Your task to perform on an android device: allow cookies in the chrome app Image 0: 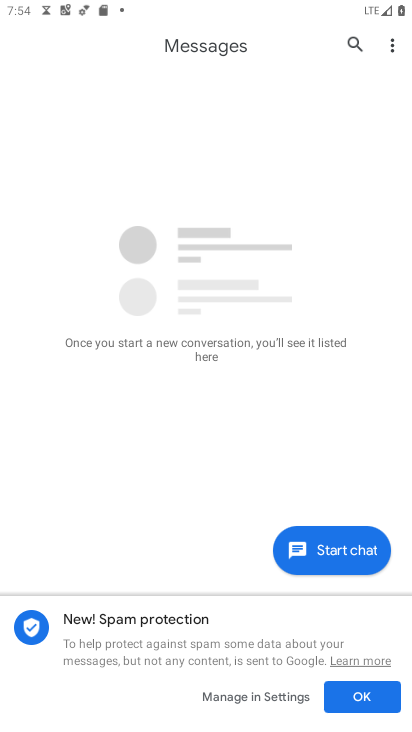
Step 0: press back button
Your task to perform on an android device: allow cookies in the chrome app Image 1: 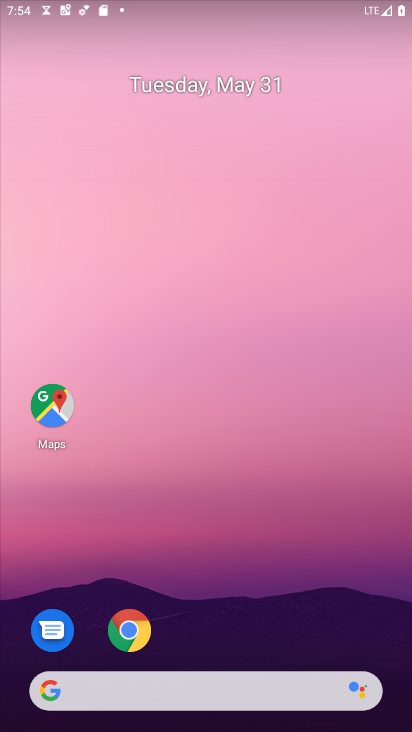
Step 1: click (129, 631)
Your task to perform on an android device: allow cookies in the chrome app Image 2: 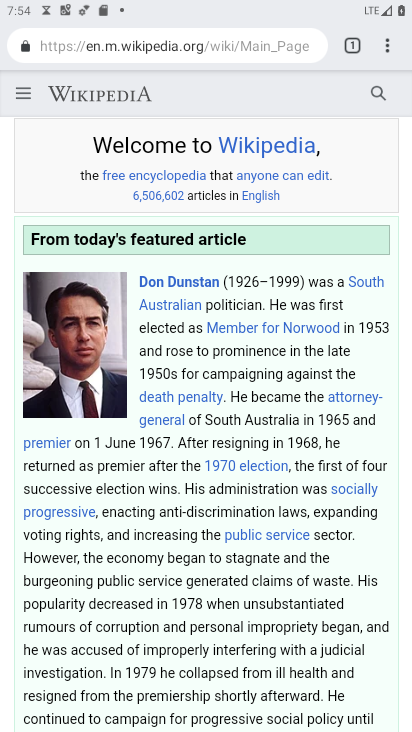
Step 2: click (388, 46)
Your task to perform on an android device: allow cookies in the chrome app Image 3: 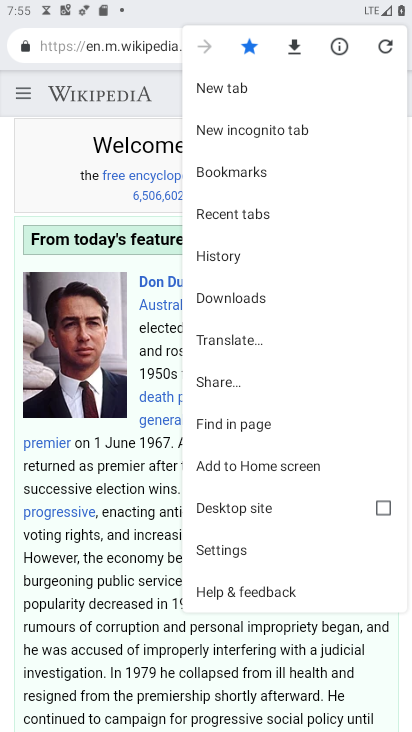
Step 3: click (231, 548)
Your task to perform on an android device: allow cookies in the chrome app Image 4: 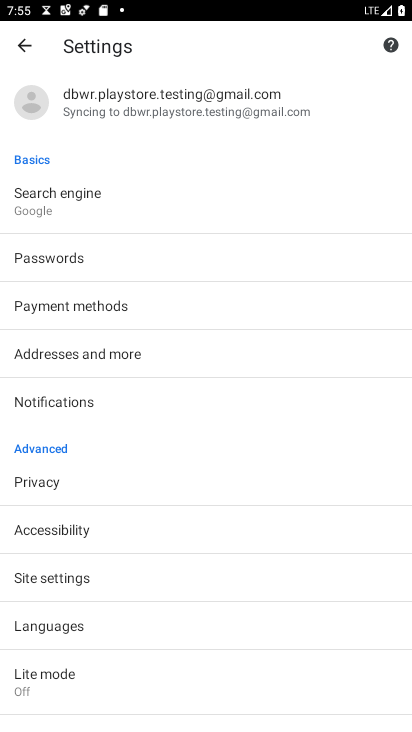
Step 4: click (62, 573)
Your task to perform on an android device: allow cookies in the chrome app Image 5: 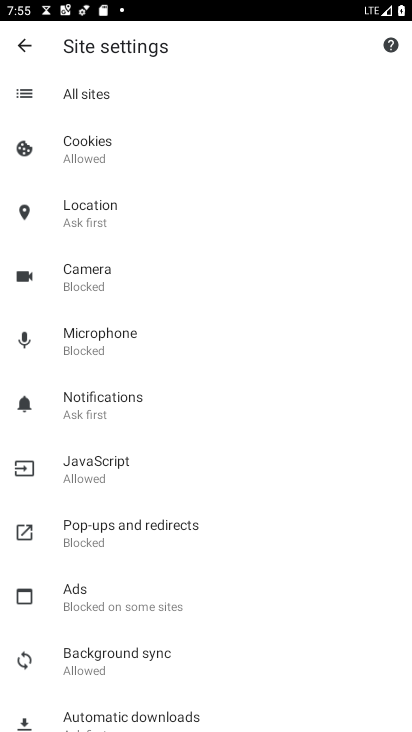
Step 5: click (85, 149)
Your task to perform on an android device: allow cookies in the chrome app Image 6: 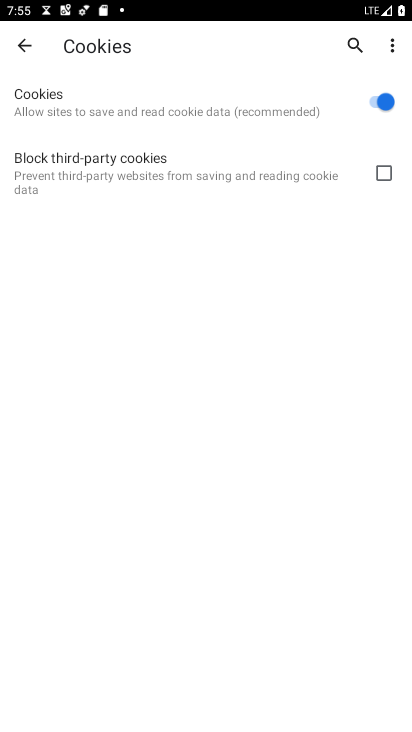
Step 6: click (375, 173)
Your task to perform on an android device: allow cookies in the chrome app Image 7: 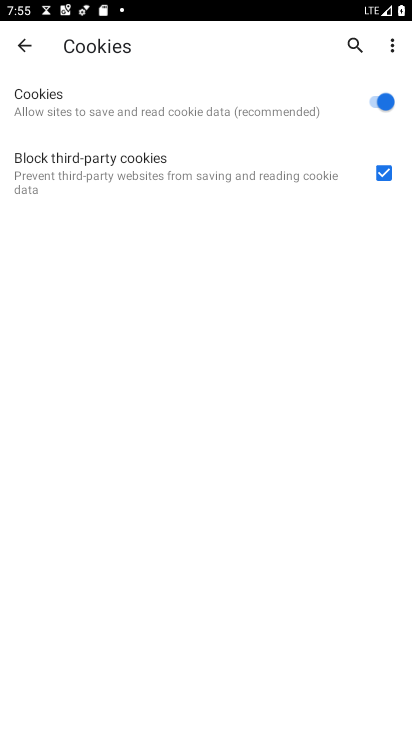
Step 7: task complete